Your task to perform on an android device: toggle wifi Image 0: 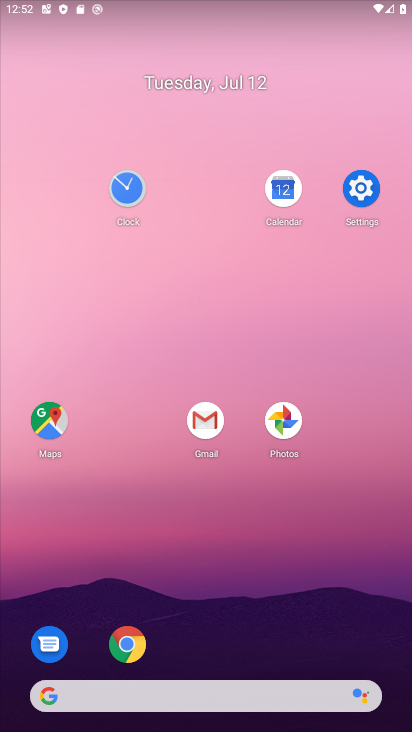
Step 0: click (376, 190)
Your task to perform on an android device: toggle wifi Image 1: 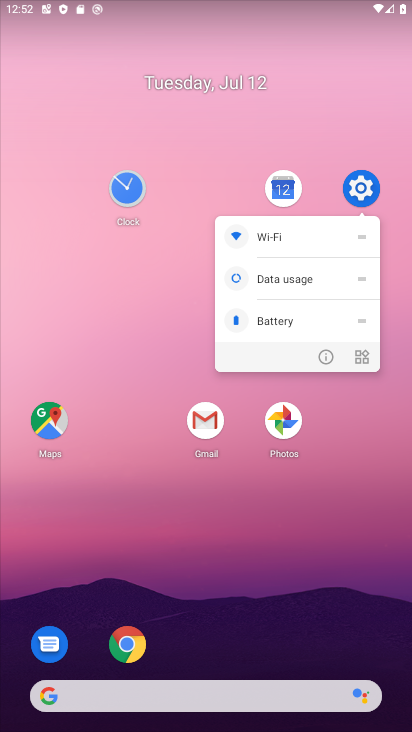
Step 1: click (368, 192)
Your task to perform on an android device: toggle wifi Image 2: 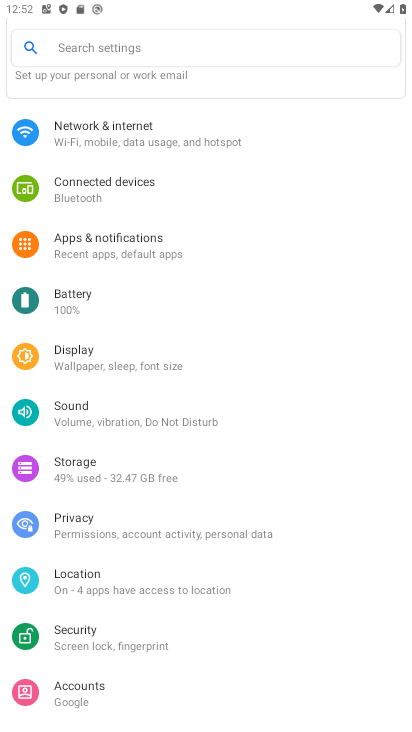
Step 2: click (130, 137)
Your task to perform on an android device: toggle wifi Image 3: 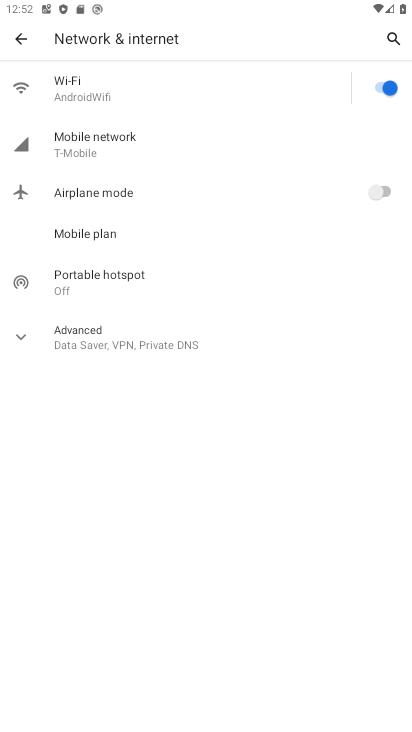
Step 3: click (368, 95)
Your task to perform on an android device: toggle wifi Image 4: 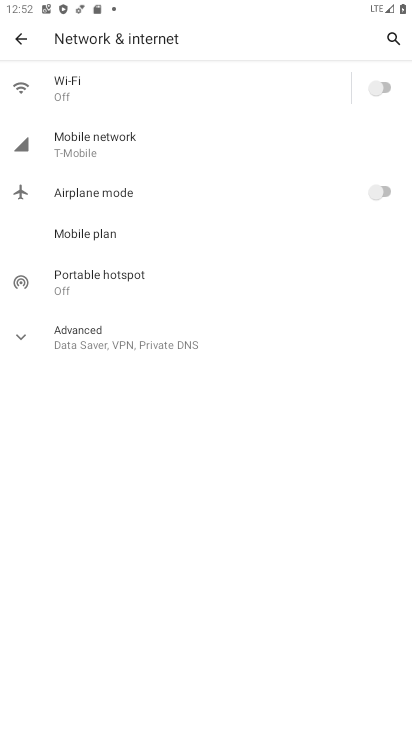
Step 4: task complete